Your task to perform on an android device: Open Google Image 0: 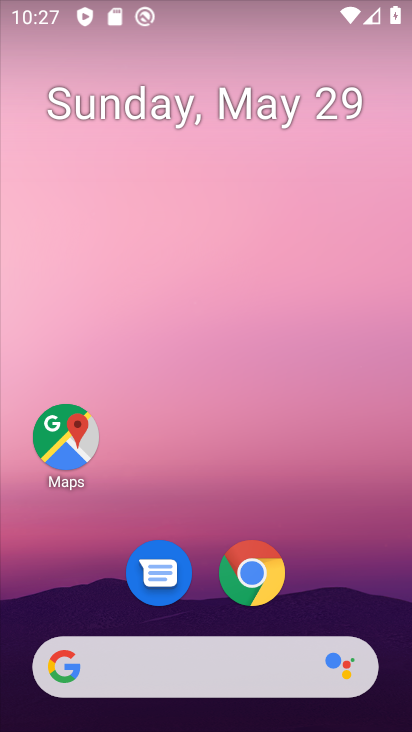
Step 0: drag from (345, 311) to (347, 155)
Your task to perform on an android device: Open Google Image 1: 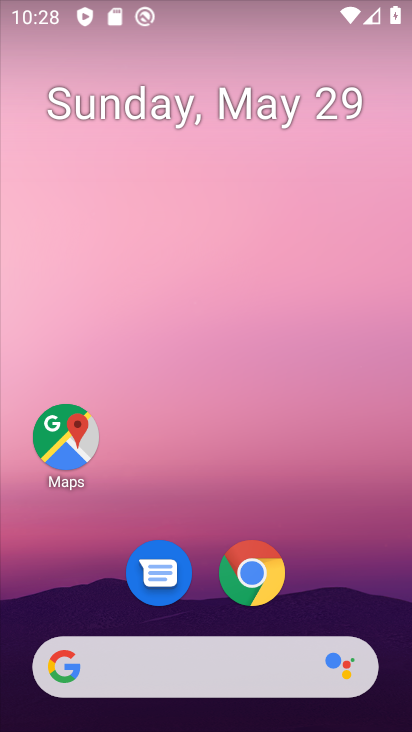
Step 1: drag from (395, 387) to (405, 66)
Your task to perform on an android device: Open Google Image 2: 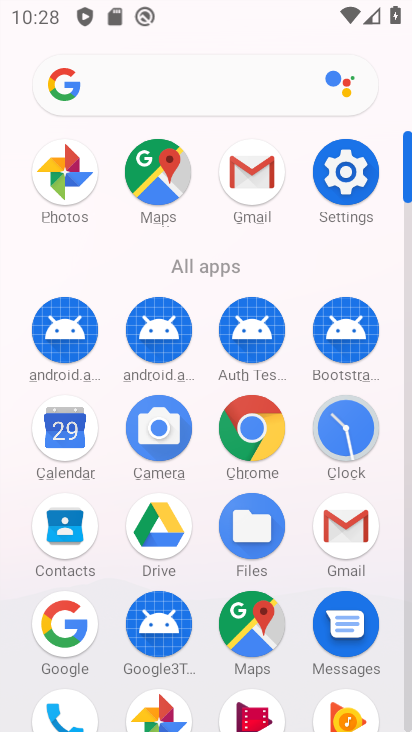
Step 2: click (66, 619)
Your task to perform on an android device: Open Google Image 3: 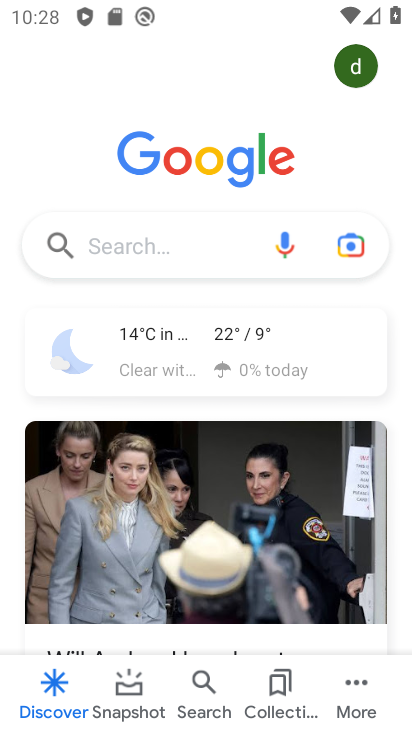
Step 3: task complete